Your task to perform on an android device: turn notification dots off Image 0: 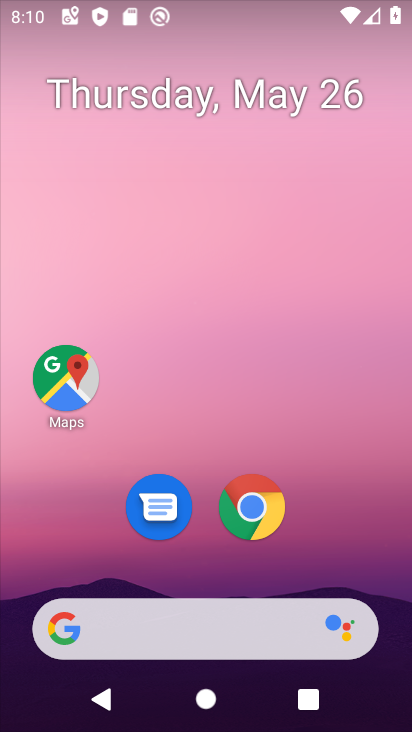
Step 0: drag from (205, 550) to (261, 145)
Your task to perform on an android device: turn notification dots off Image 1: 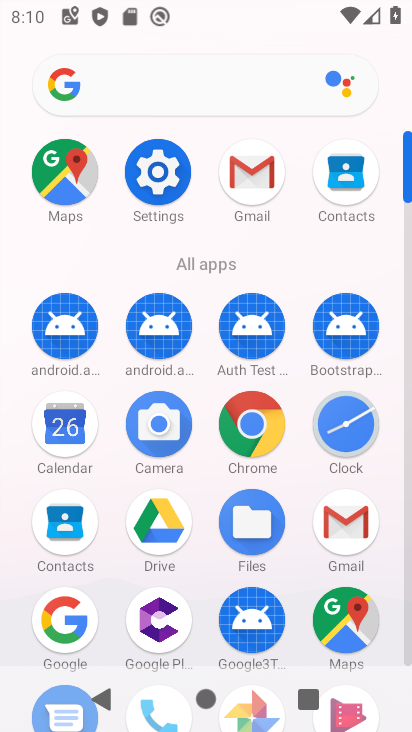
Step 1: click (151, 173)
Your task to perform on an android device: turn notification dots off Image 2: 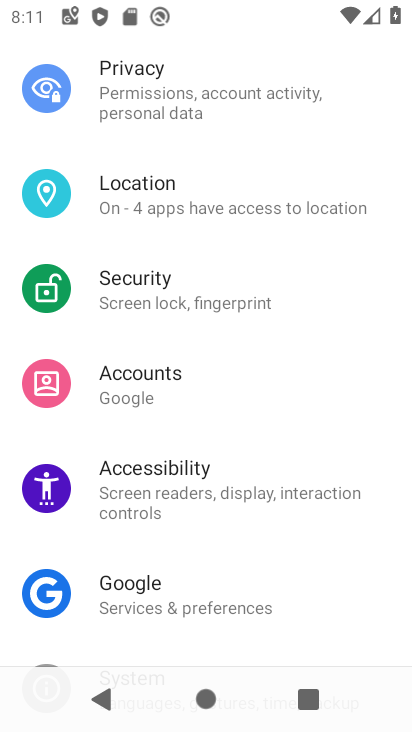
Step 2: drag from (258, 168) to (238, 576)
Your task to perform on an android device: turn notification dots off Image 3: 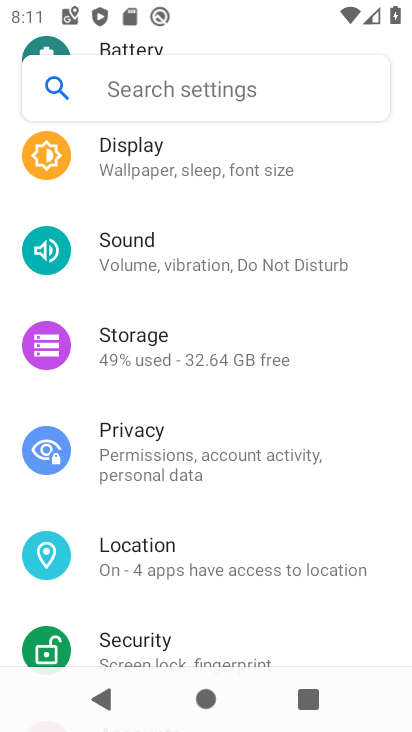
Step 3: drag from (244, 231) to (229, 555)
Your task to perform on an android device: turn notification dots off Image 4: 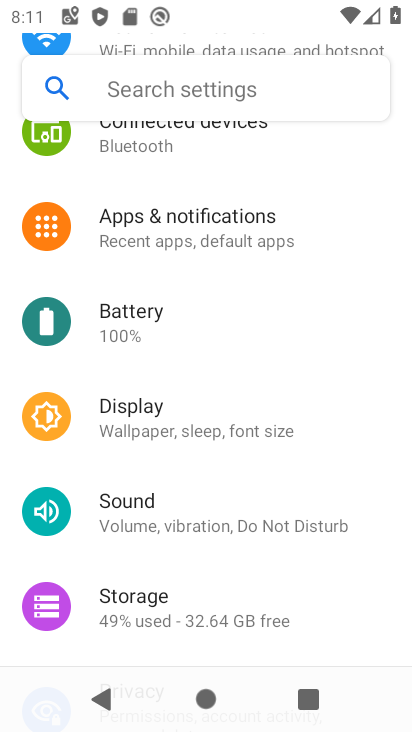
Step 4: click (232, 220)
Your task to perform on an android device: turn notification dots off Image 5: 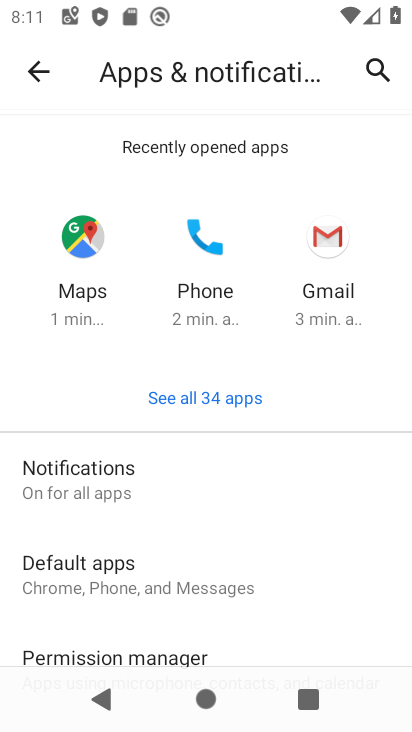
Step 5: click (77, 464)
Your task to perform on an android device: turn notification dots off Image 6: 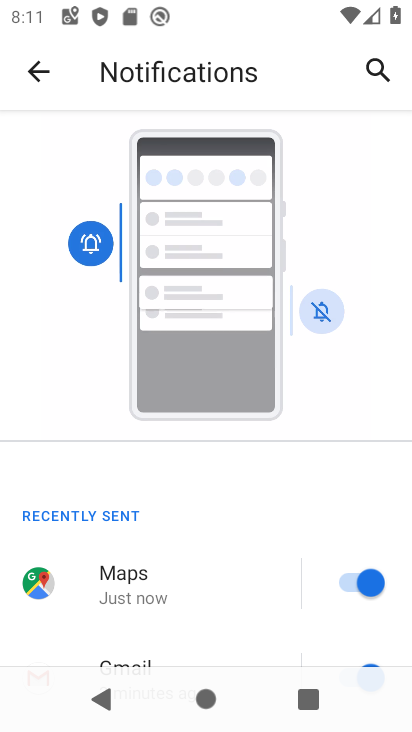
Step 6: drag from (211, 625) to (378, 241)
Your task to perform on an android device: turn notification dots off Image 7: 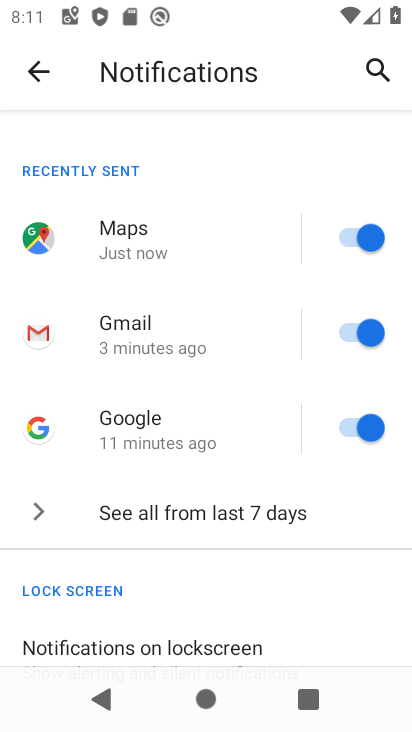
Step 7: drag from (183, 591) to (330, 177)
Your task to perform on an android device: turn notification dots off Image 8: 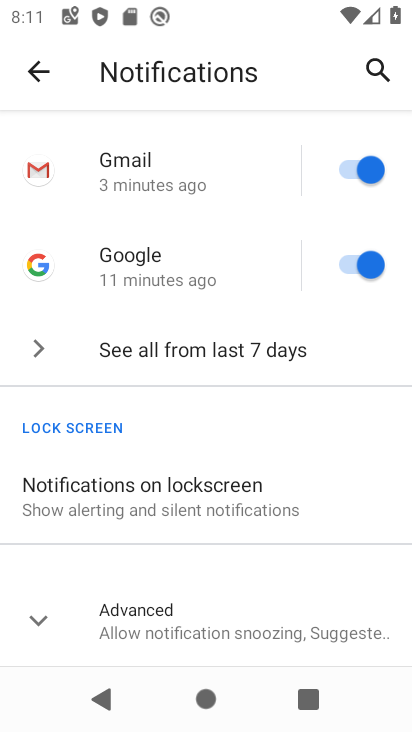
Step 8: click (141, 623)
Your task to perform on an android device: turn notification dots off Image 9: 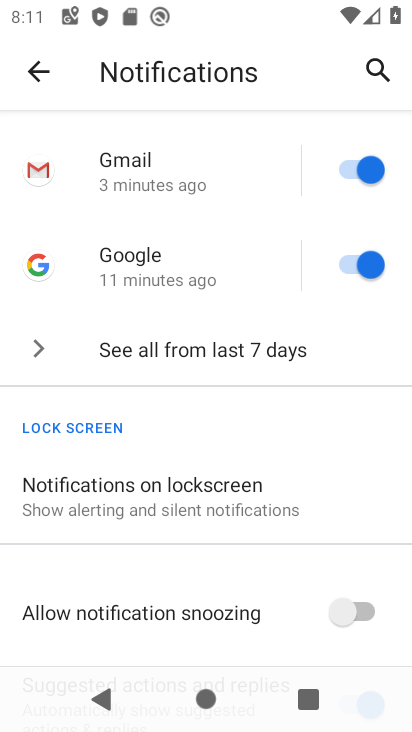
Step 9: drag from (272, 618) to (396, 218)
Your task to perform on an android device: turn notification dots off Image 10: 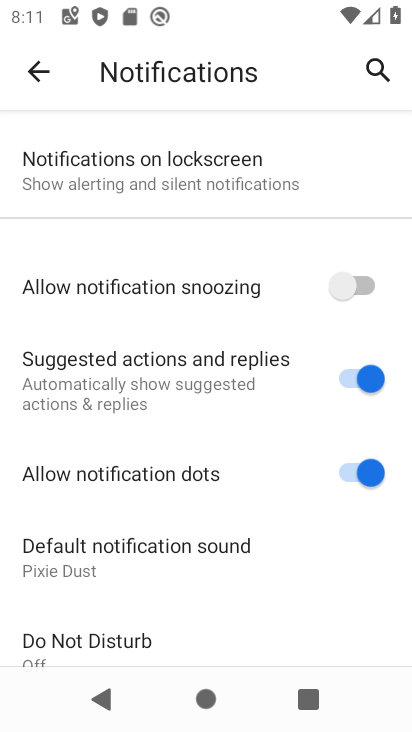
Step 10: click (342, 475)
Your task to perform on an android device: turn notification dots off Image 11: 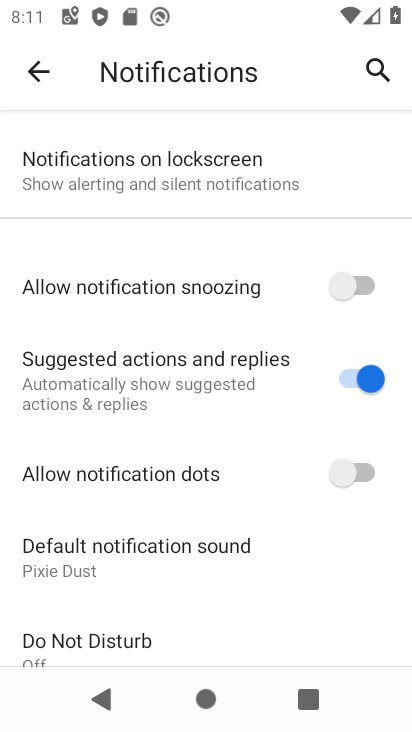
Step 11: task complete